Your task to perform on an android device: toggle translation in the chrome app Image 0: 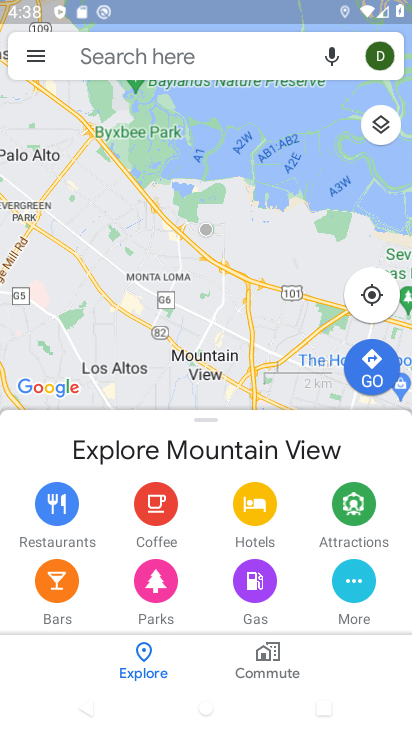
Step 0: press home button
Your task to perform on an android device: toggle translation in the chrome app Image 1: 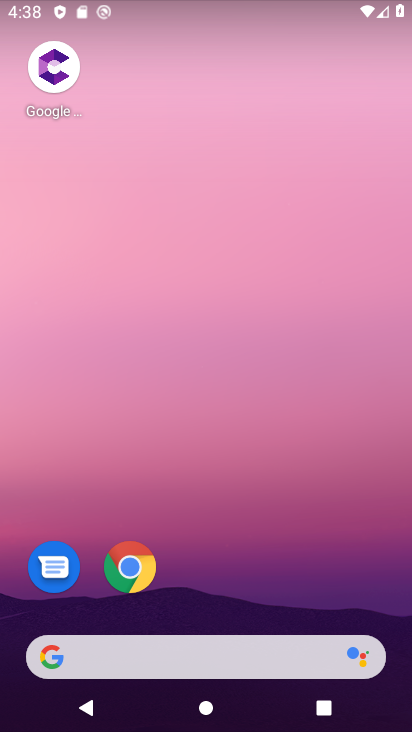
Step 1: drag from (210, 646) to (205, 20)
Your task to perform on an android device: toggle translation in the chrome app Image 2: 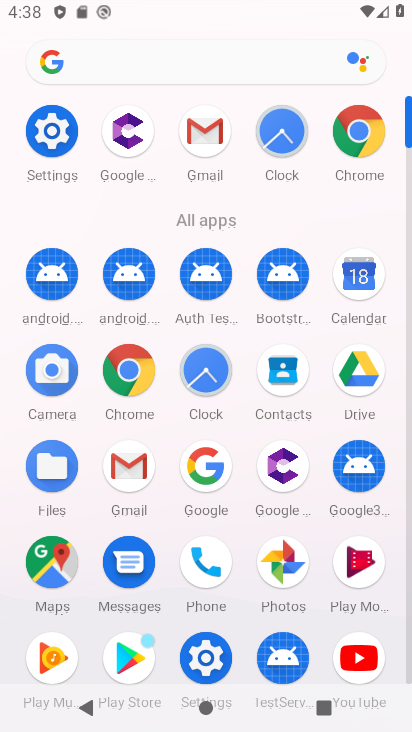
Step 2: click (364, 126)
Your task to perform on an android device: toggle translation in the chrome app Image 3: 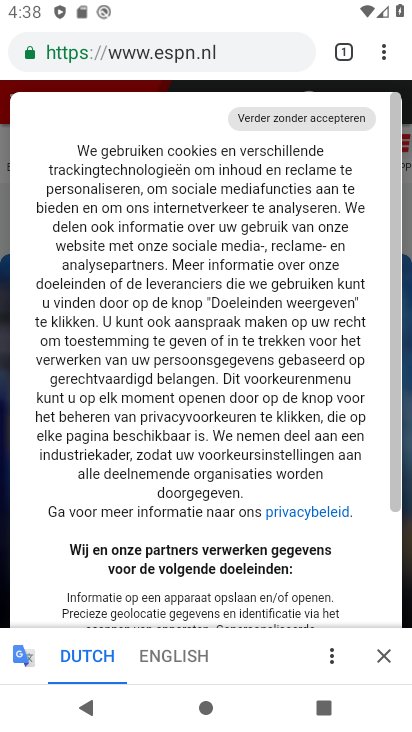
Step 3: click (387, 48)
Your task to perform on an android device: toggle translation in the chrome app Image 4: 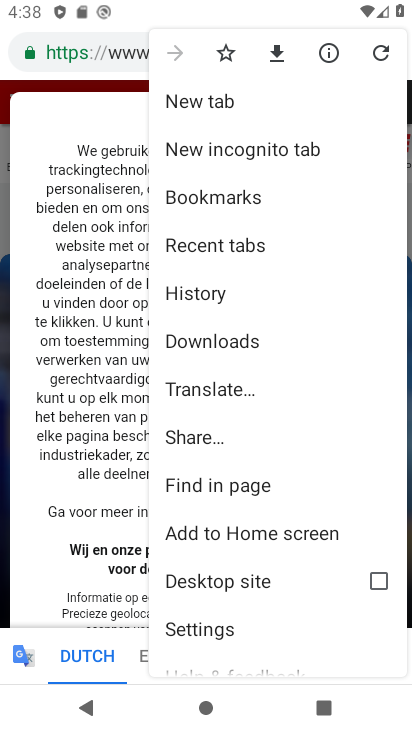
Step 4: click (271, 385)
Your task to perform on an android device: toggle translation in the chrome app Image 5: 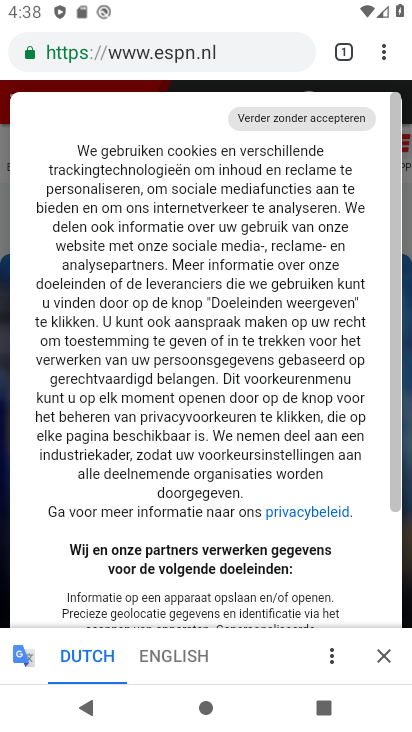
Step 5: click (386, 55)
Your task to perform on an android device: toggle translation in the chrome app Image 6: 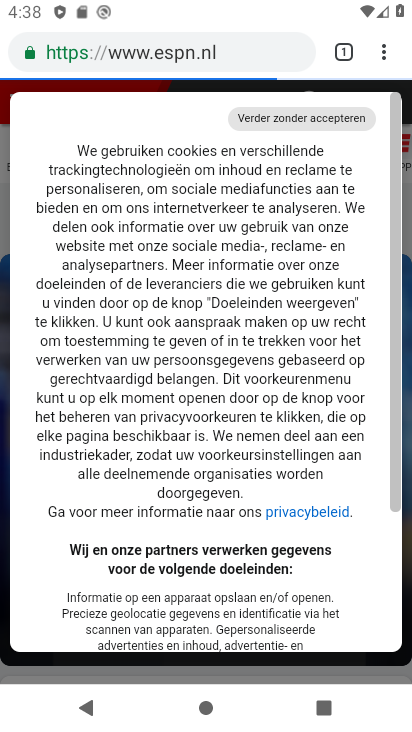
Step 6: click (385, 55)
Your task to perform on an android device: toggle translation in the chrome app Image 7: 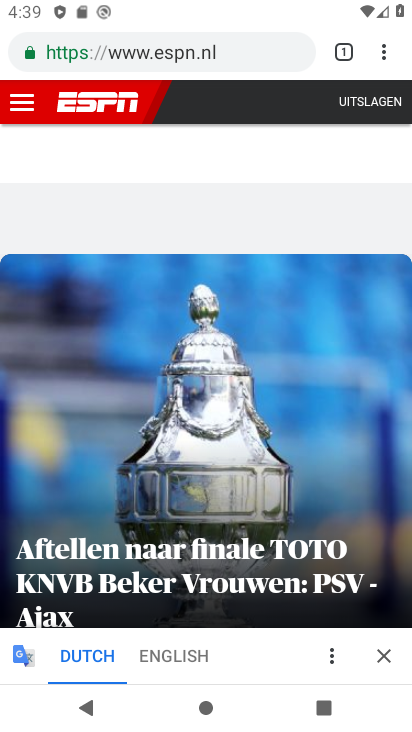
Step 7: click (385, 55)
Your task to perform on an android device: toggle translation in the chrome app Image 8: 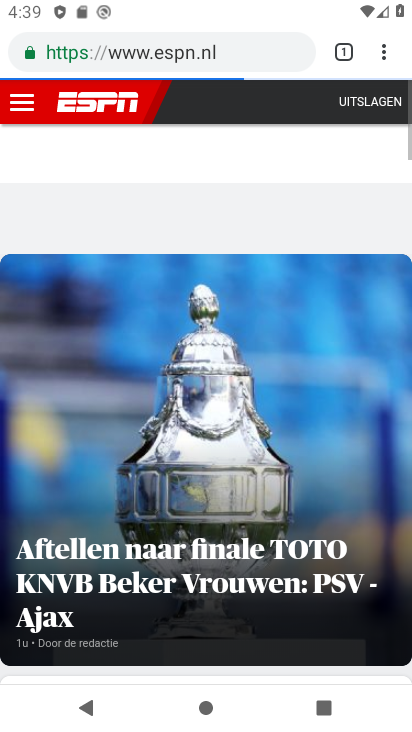
Step 8: click (385, 55)
Your task to perform on an android device: toggle translation in the chrome app Image 9: 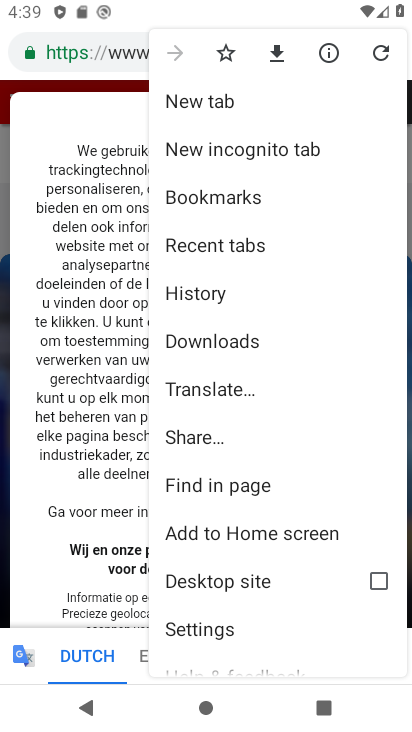
Step 9: click (213, 646)
Your task to perform on an android device: toggle translation in the chrome app Image 10: 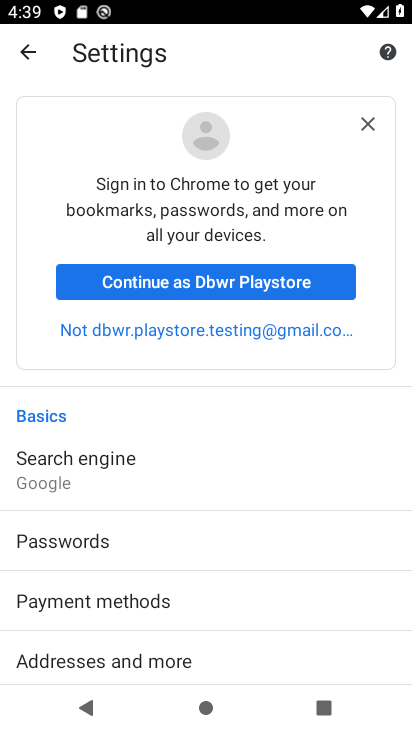
Step 10: drag from (173, 592) to (221, 244)
Your task to perform on an android device: toggle translation in the chrome app Image 11: 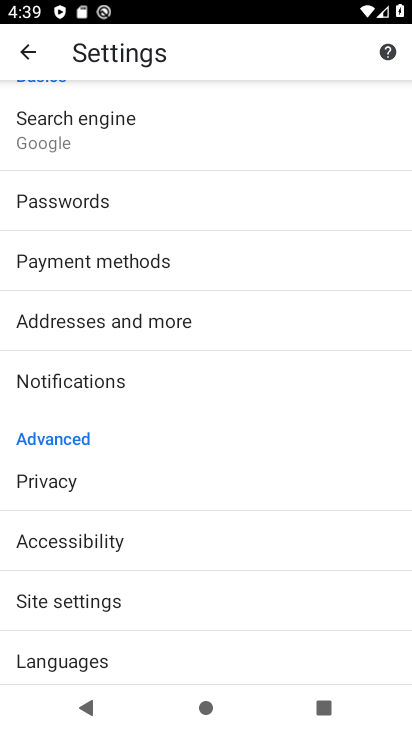
Step 11: drag from (141, 609) to (117, 386)
Your task to perform on an android device: toggle translation in the chrome app Image 12: 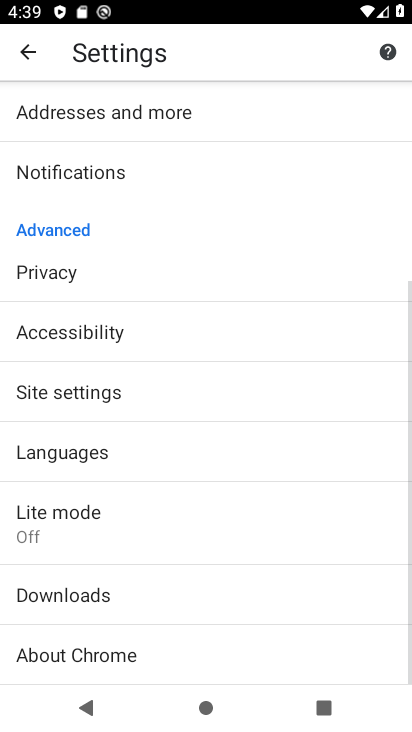
Step 12: click (117, 469)
Your task to perform on an android device: toggle translation in the chrome app Image 13: 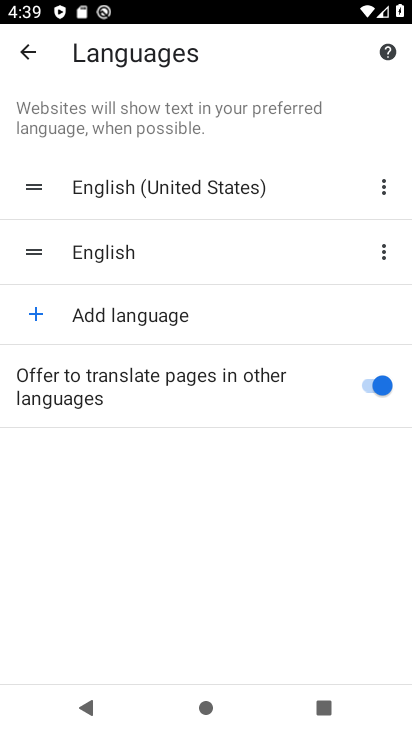
Step 13: click (374, 392)
Your task to perform on an android device: toggle translation in the chrome app Image 14: 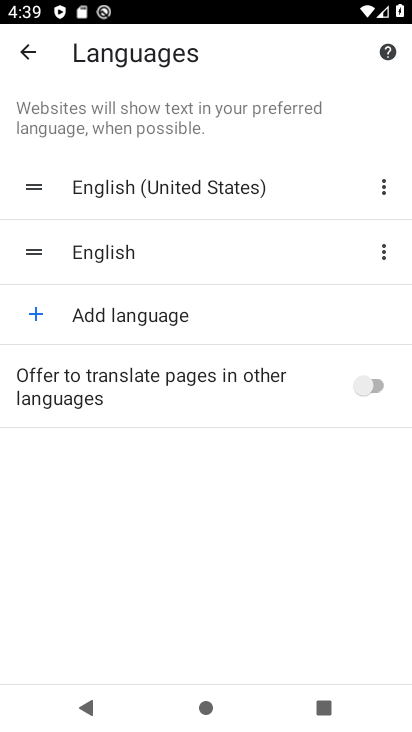
Step 14: task complete